Your task to perform on an android device: change the clock display to show seconds Image 0: 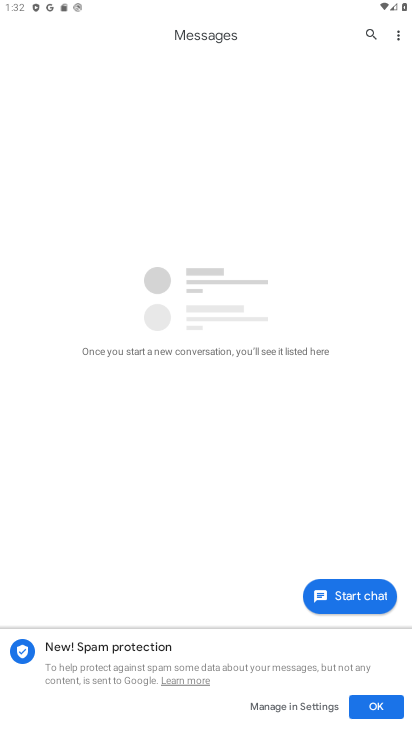
Step 0: press home button
Your task to perform on an android device: change the clock display to show seconds Image 1: 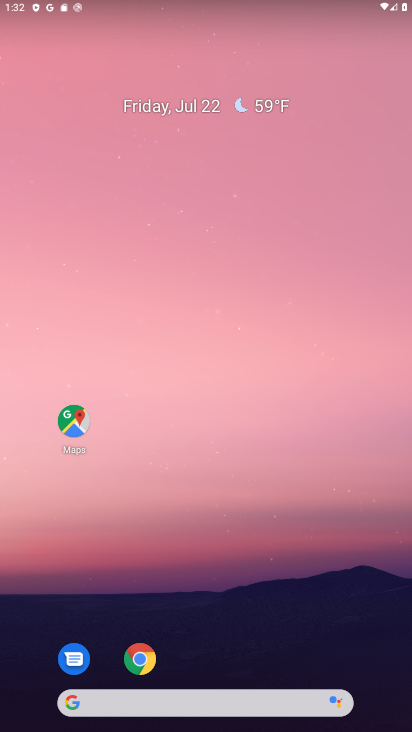
Step 1: drag from (270, 542) to (409, 26)
Your task to perform on an android device: change the clock display to show seconds Image 2: 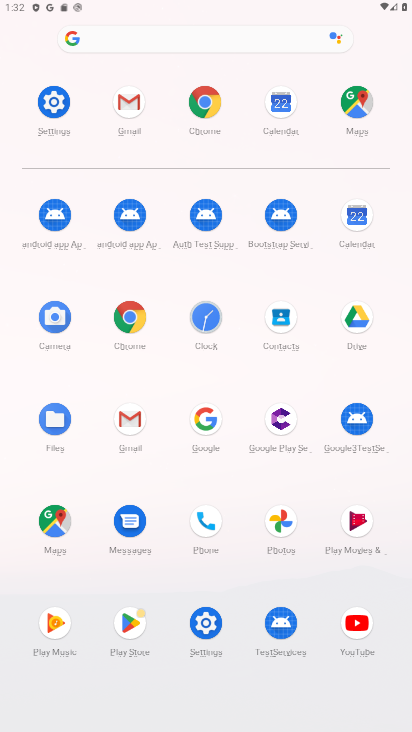
Step 2: click (224, 332)
Your task to perform on an android device: change the clock display to show seconds Image 3: 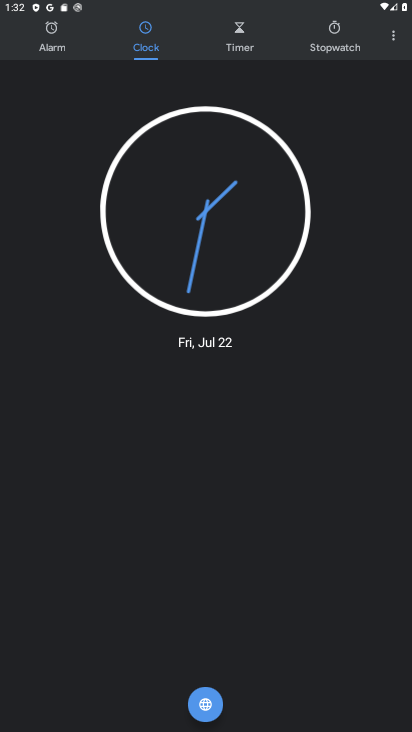
Step 3: click (391, 42)
Your task to perform on an android device: change the clock display to show seconds Image 4: 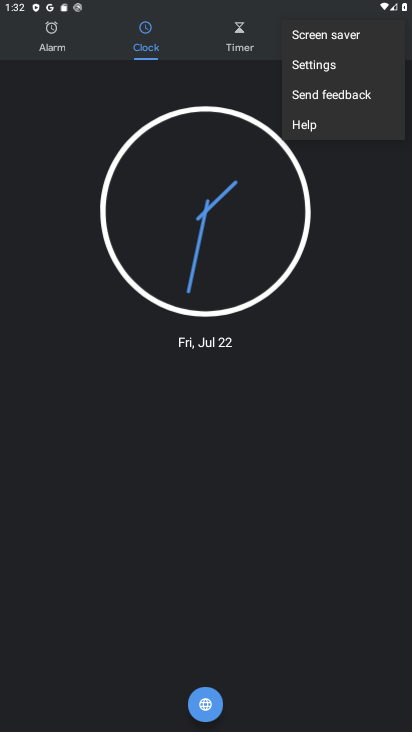
Step 4: click (330, 66)
Your task to perform on an android device: change the clock display to show seconds Image 5: 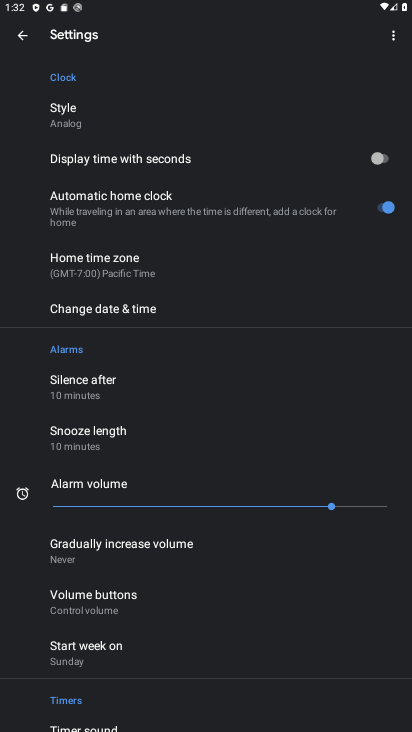
Step 5: click (380, 164)
Your task to perform on an android device: change the clock display to show seconds Image 6: 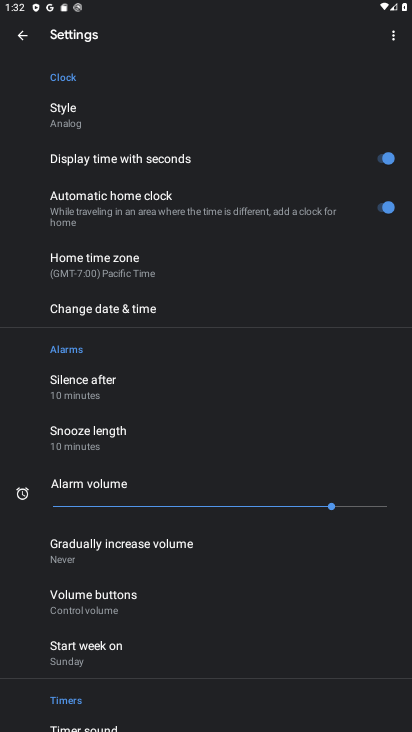
Step 6: task complete